Your task to perform on an android device: Open Google Chrome and open the bookmarks view Image 0: 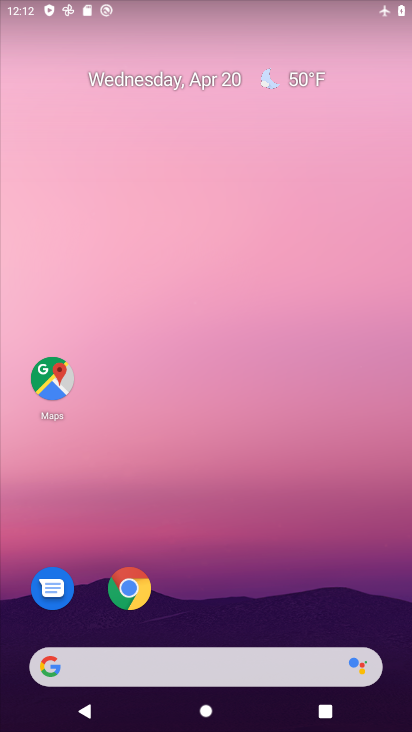
Step 0: drag from (207, 587) to (231, 60)
Your task to perform on an android device: Open Google Chrome and open the bookmarks view Image 1: 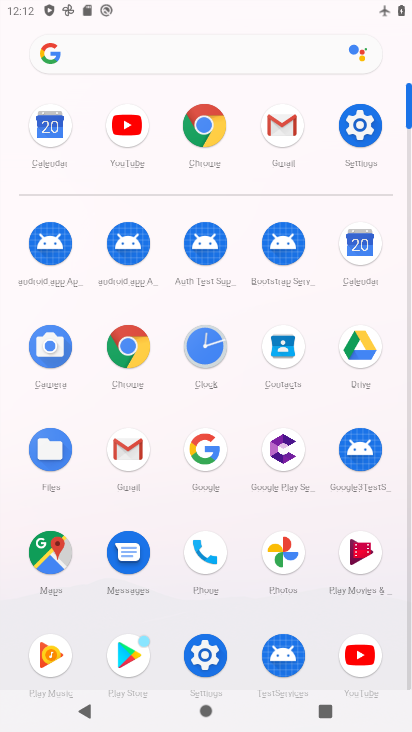
Step 1: click (209, 120)
Your task to perform on an android device: Open Google Chrome and open the bookmarks view Image 2: 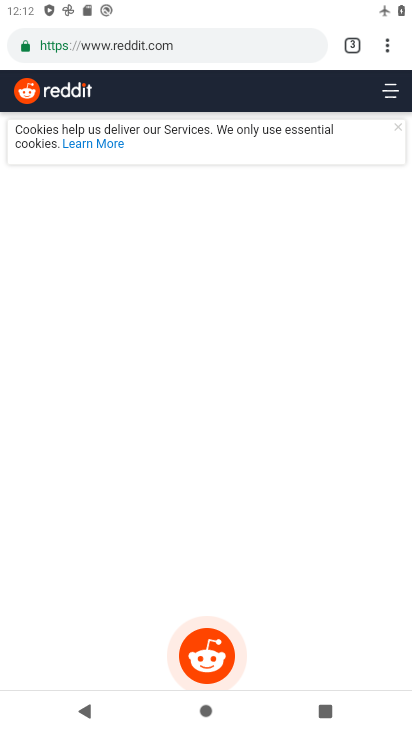
Step 2: click (387, 48)
Your task to perform on an android device: Open Google Chrome and open the bookmarks view Image 3: 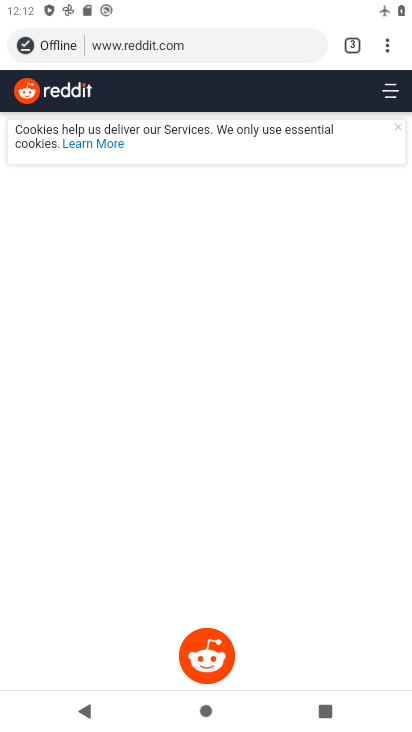
Step 3: click (388, 41)
Your task to perform on an android device: Open Google Chrome and open the bookmarks view Image 4: 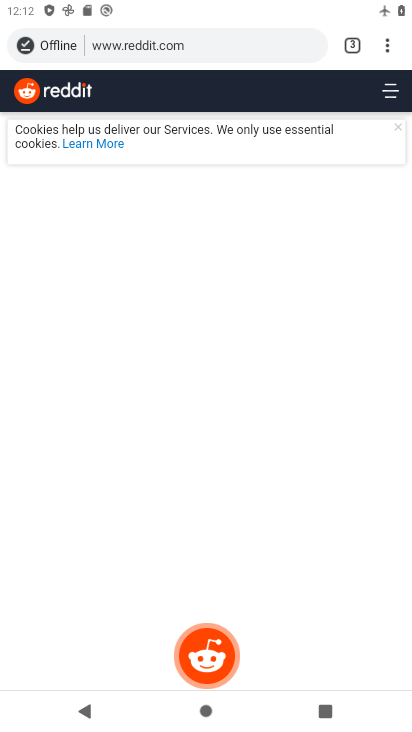
Step 4: click (385, 44)
Your task to perform on an android device: Open Google Chrome and open the bookmarks view Image 5: 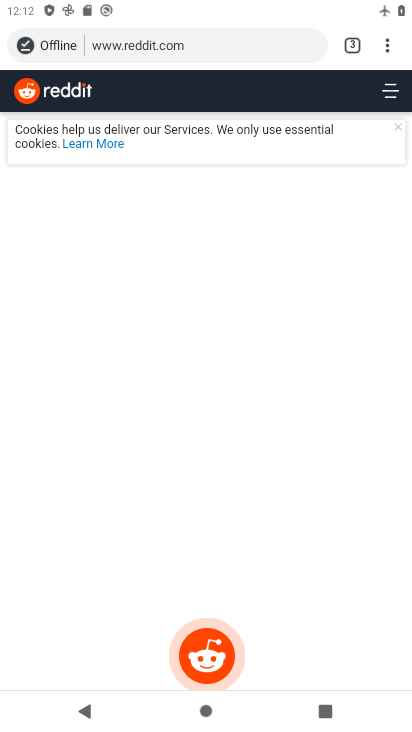
Step 5: click (388, 47)
Your task to perform on an android device: Open Google Chrome and open the bookmarks view Image 6: 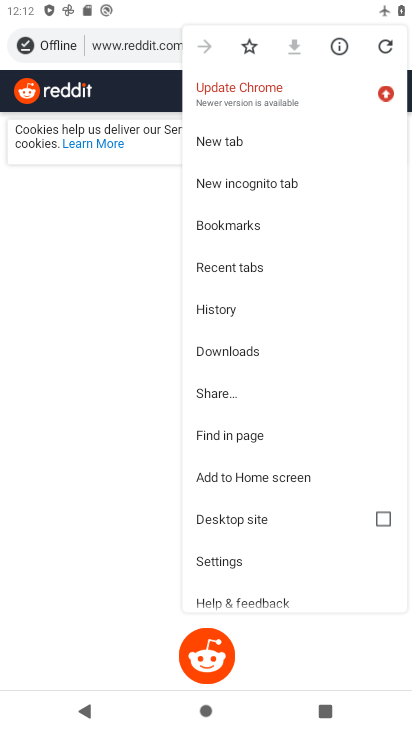
Step 6: click (268, 223)
Your task to perform on an android device: Open Google Chrome and open the bookmarks view Image 7: 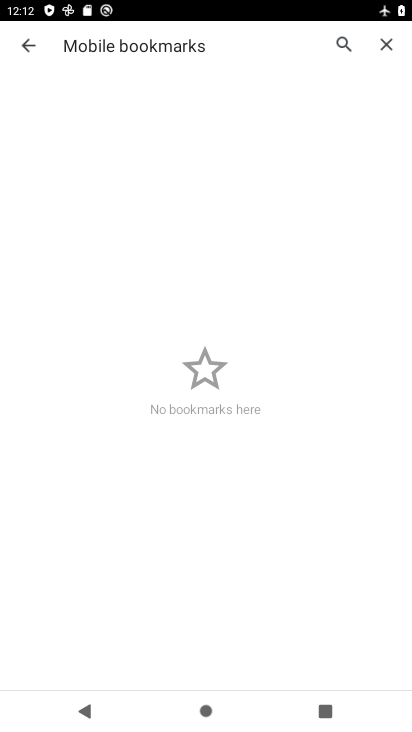
Step 7: task complete